Your task to perform on an android device: Search for Italian restaurants on Maps Image 0: 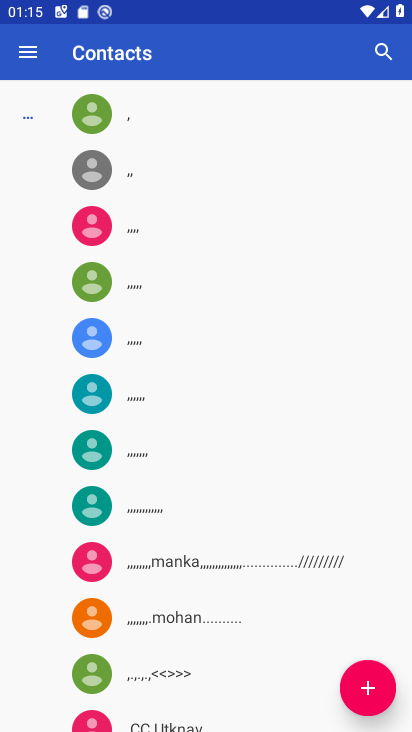
Step 0: press home button
Your task to perform on an android device: Search for Italian restaurants on Maps Image 1: 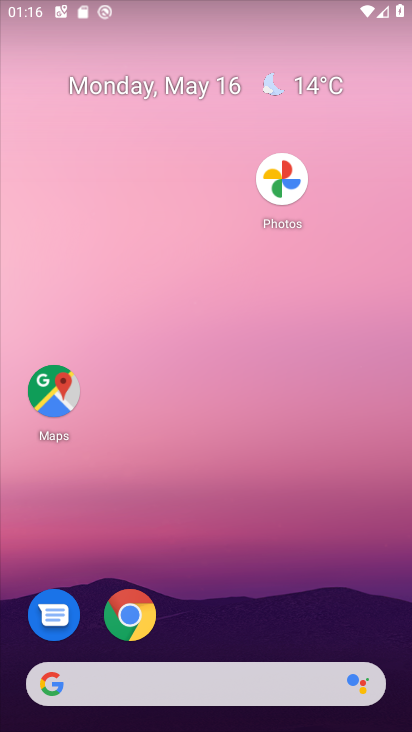
Step 1: drag from (376, 623) to (345, 180)
Your task to perform on an android device: Search for Italian restaurants on Maps Image 2: 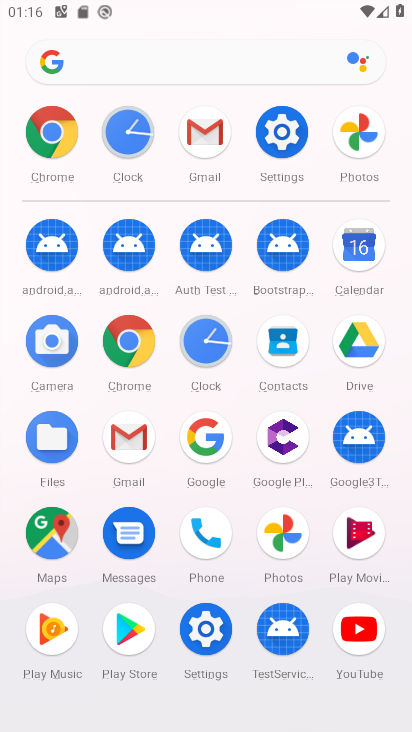
Step 2: click (39, 547)
Your task to perform on an android device: Search for Italian restaurants on Maps Image 3: 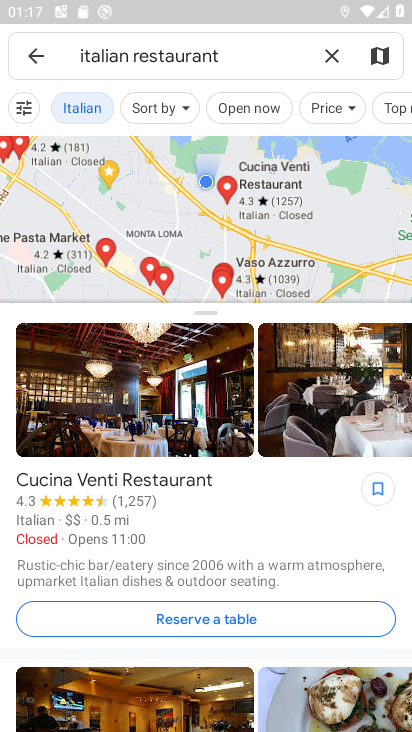
Step 3: task complete